Your task to perform on an android device: Search for good Italian restaurants Image 0: 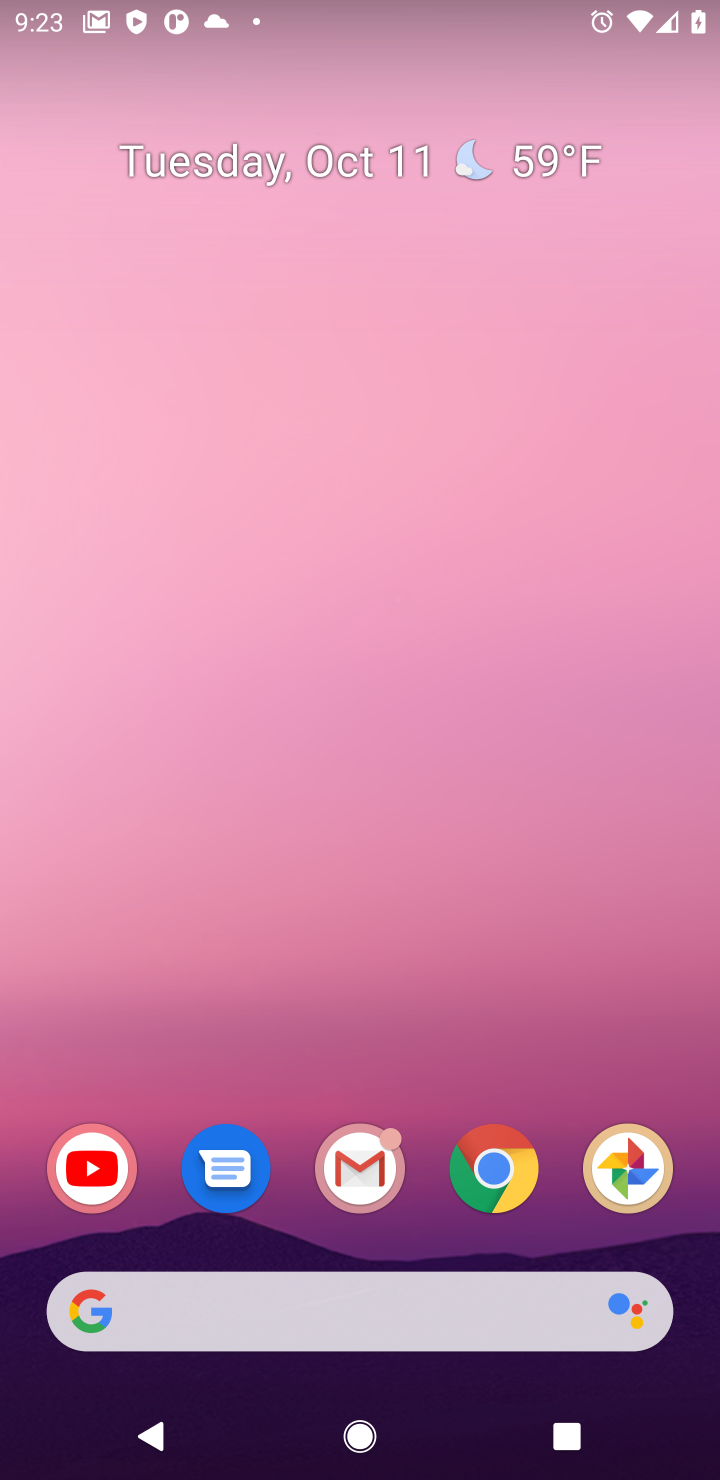
Step 0: press home button
Your task to perform on an android device: Search for good Italian restaurants Image 1: 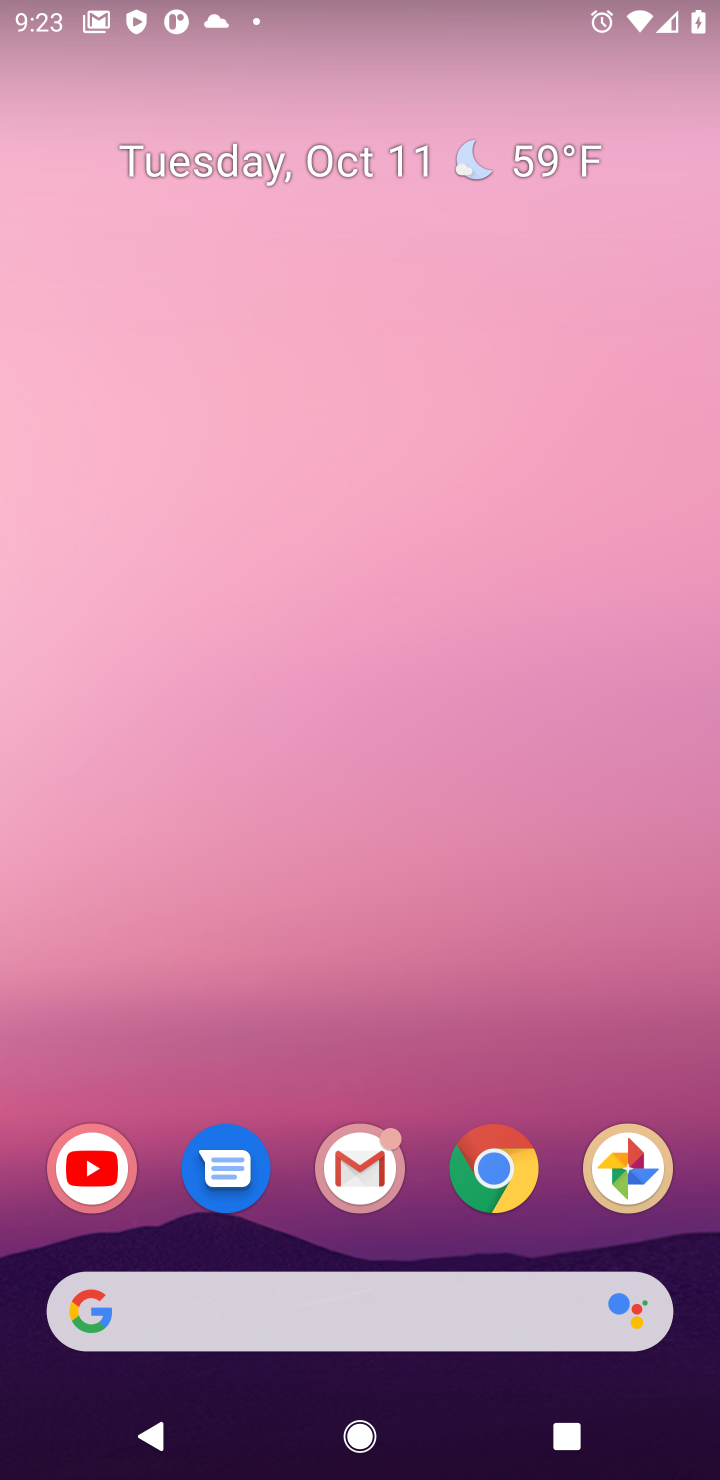
Step 1: click (522, 1136)
Your task to perform on an android device: Search for good Italian restaurants Image 2: 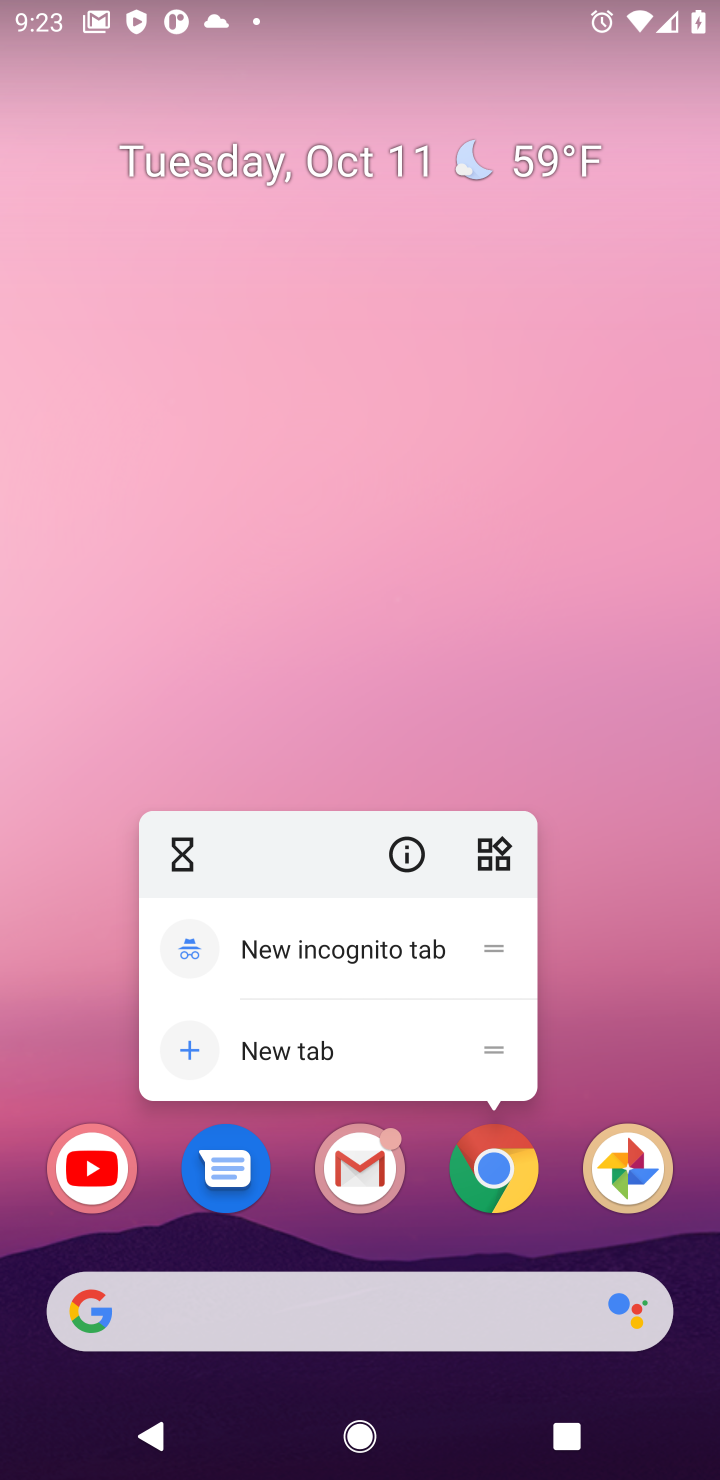
Step 2: press home button
Your task to perform on an android device: Search for good Italian restaurants Image 3: 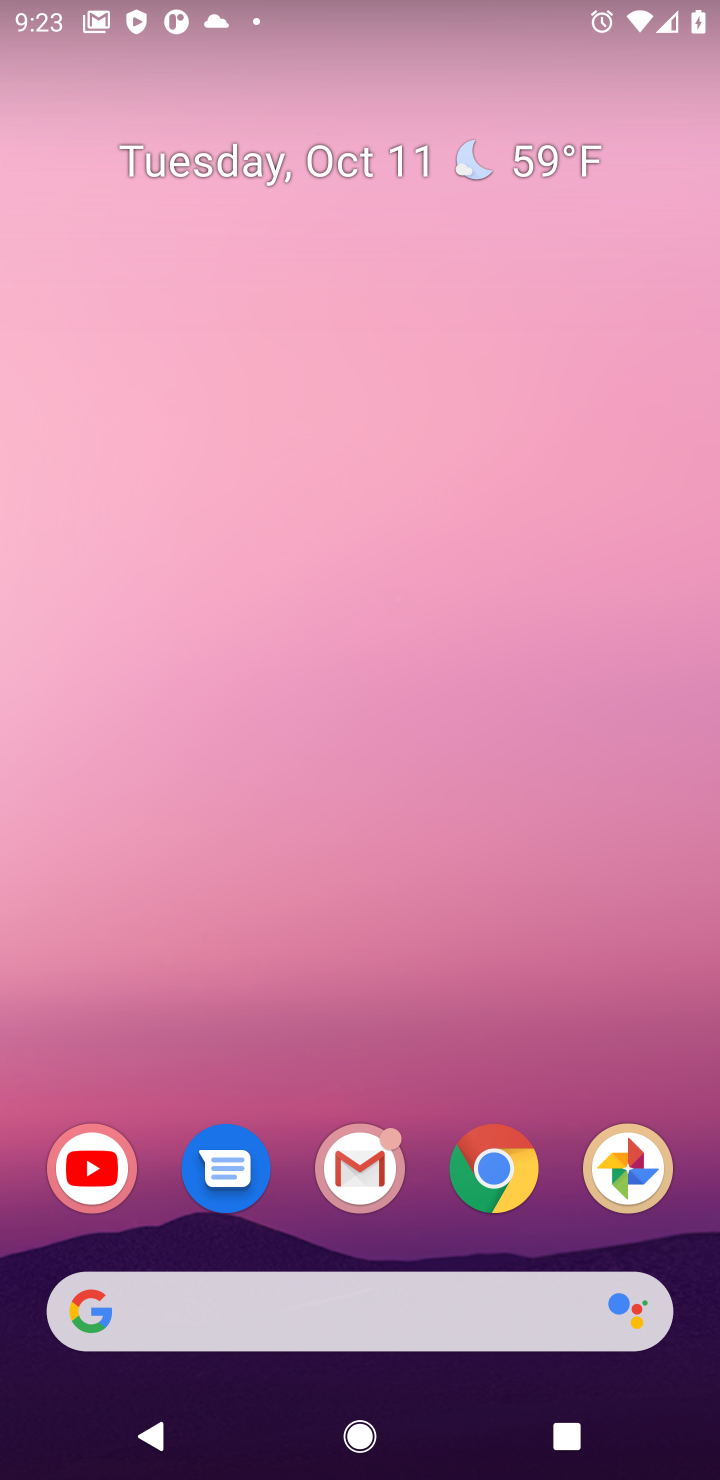
Step 3: press back button
Your task to perform on an android device: Search for good Italian restaurants Image 4: 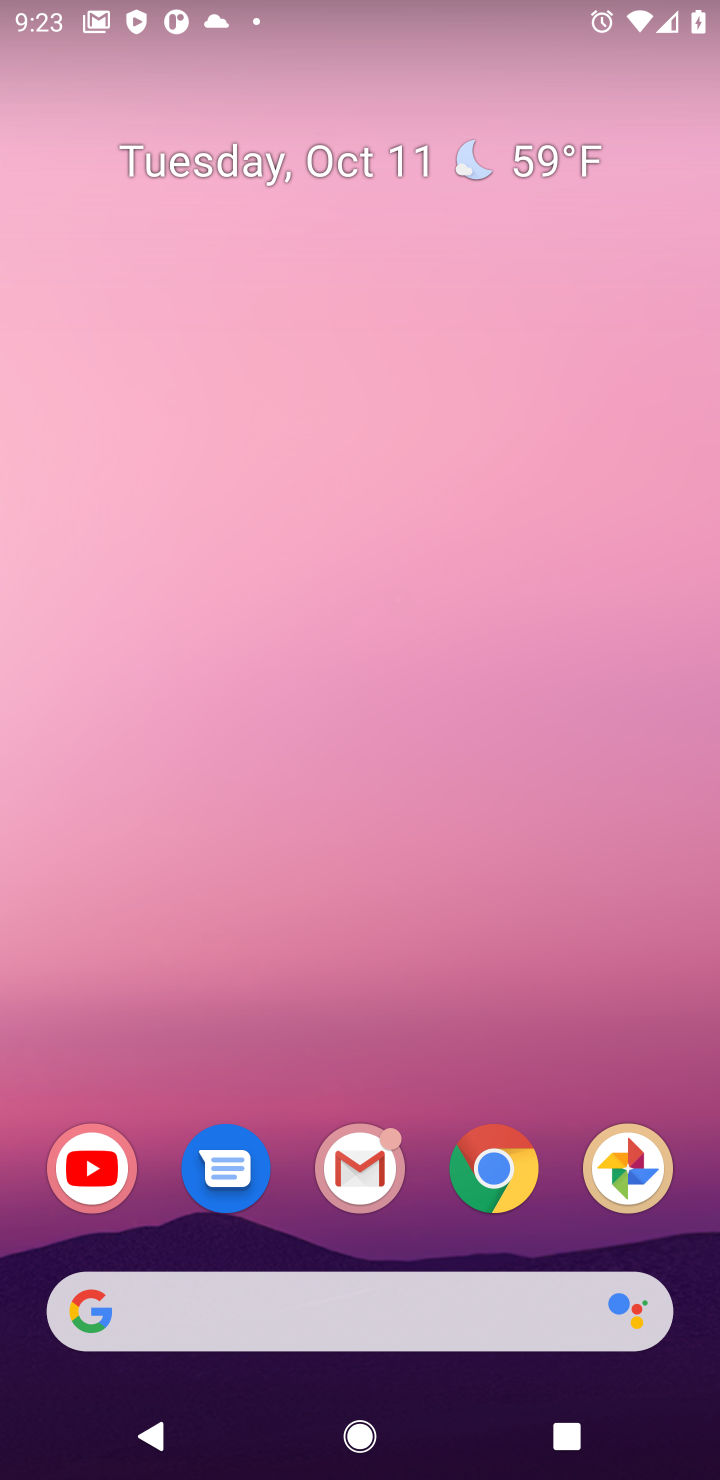
Step 4: press home button
Your task to perform on an android device: Search for good Italian restaurants Image 5: 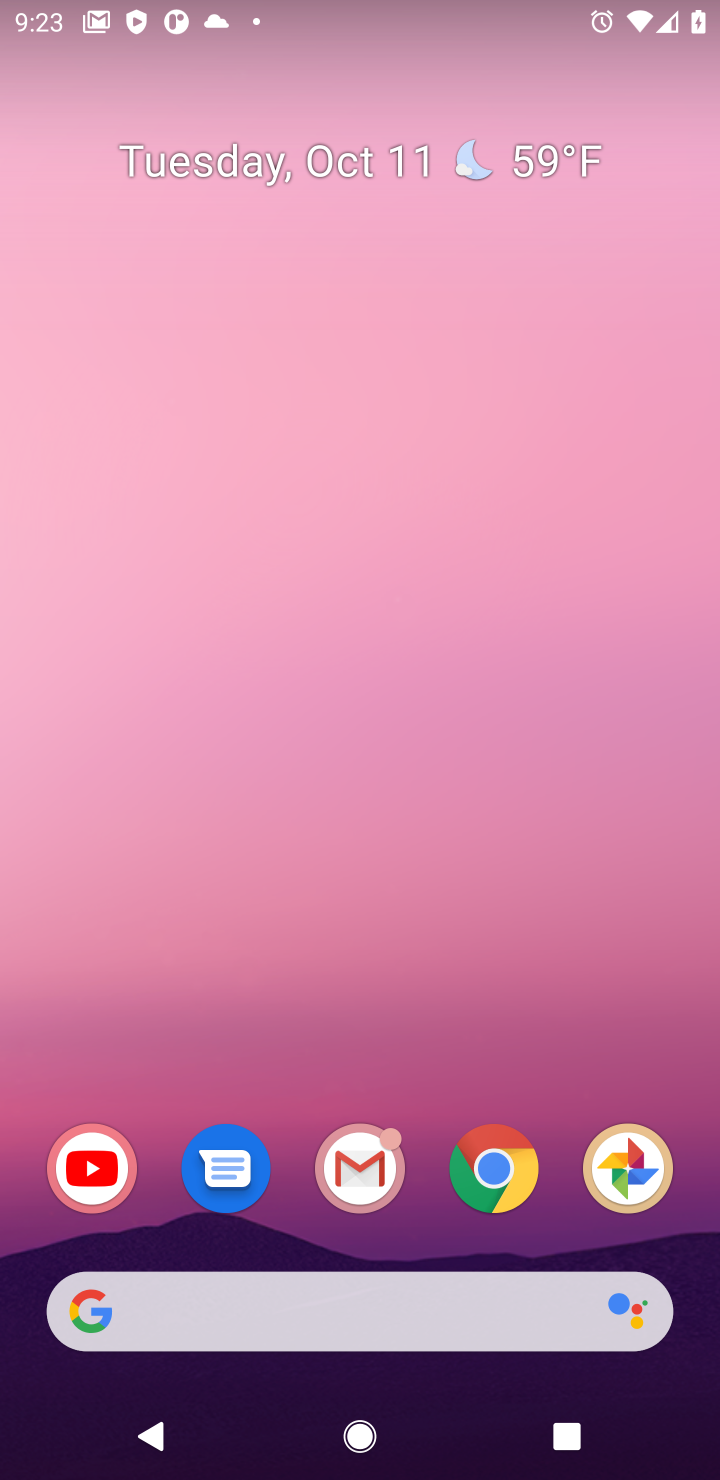
Step 5: click (500, 1158)
Your task to perform on an android device: Search for good Italian restaurants Image 6: 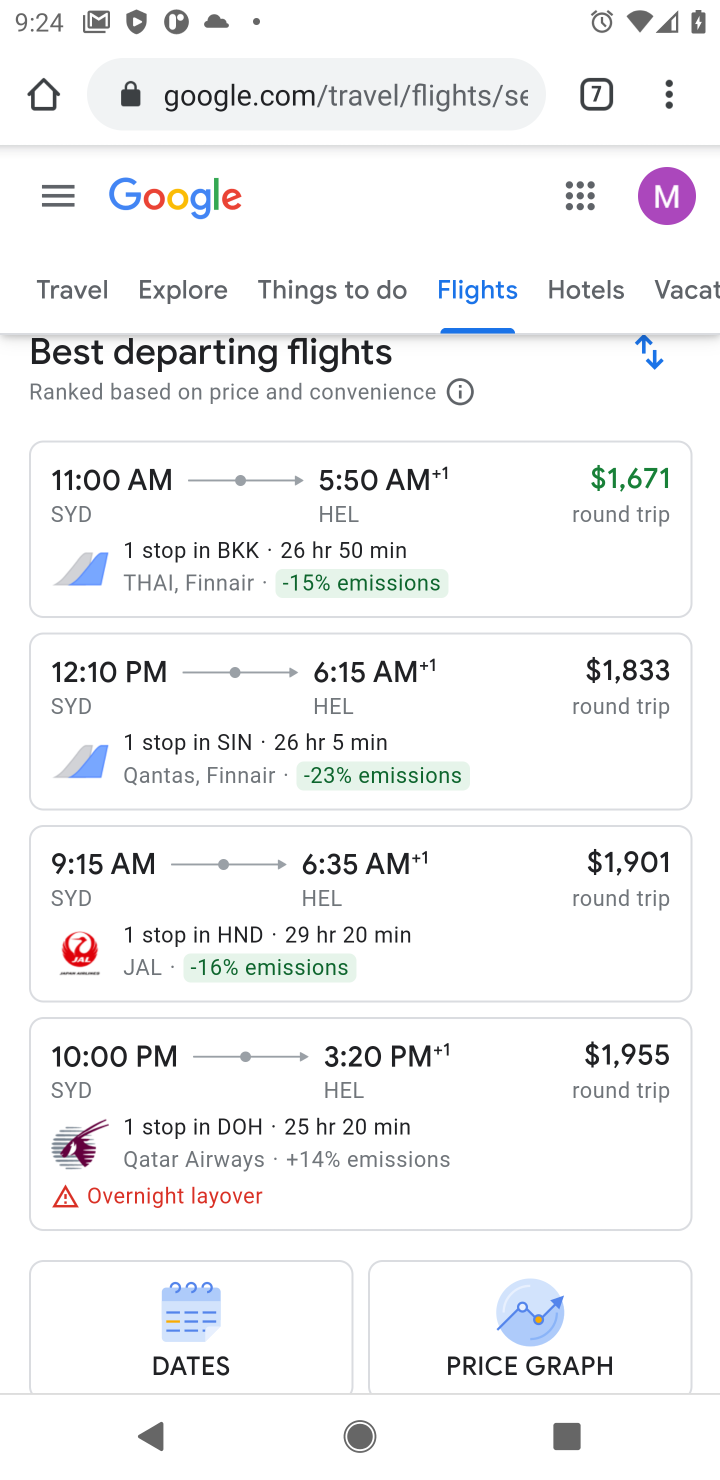
Step 6: click (338, 99)
Your task to perform on an android device: Search for good Italian restaurants Image 7: 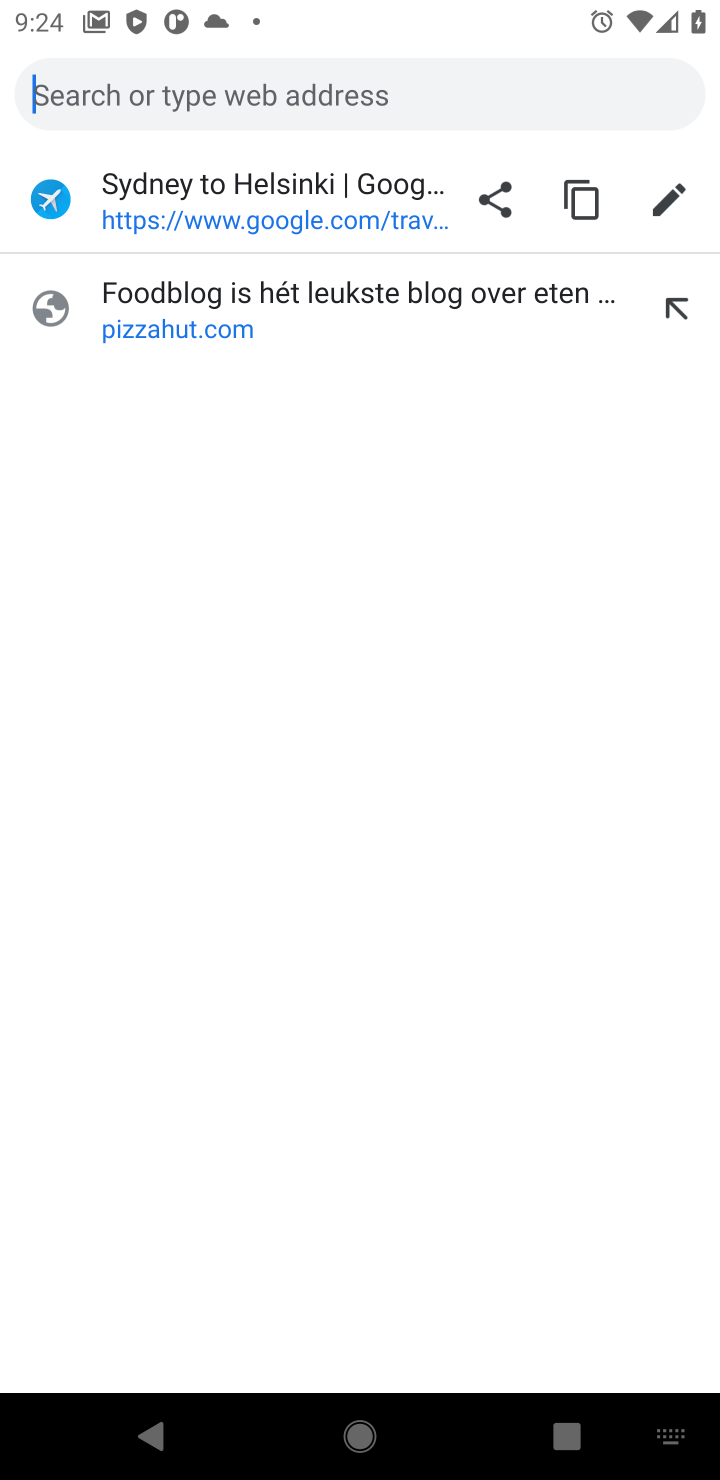
Step 7: type "good italian restaurants"
Your task to perform on an android device: Search for good Italian restaurants Image 8: 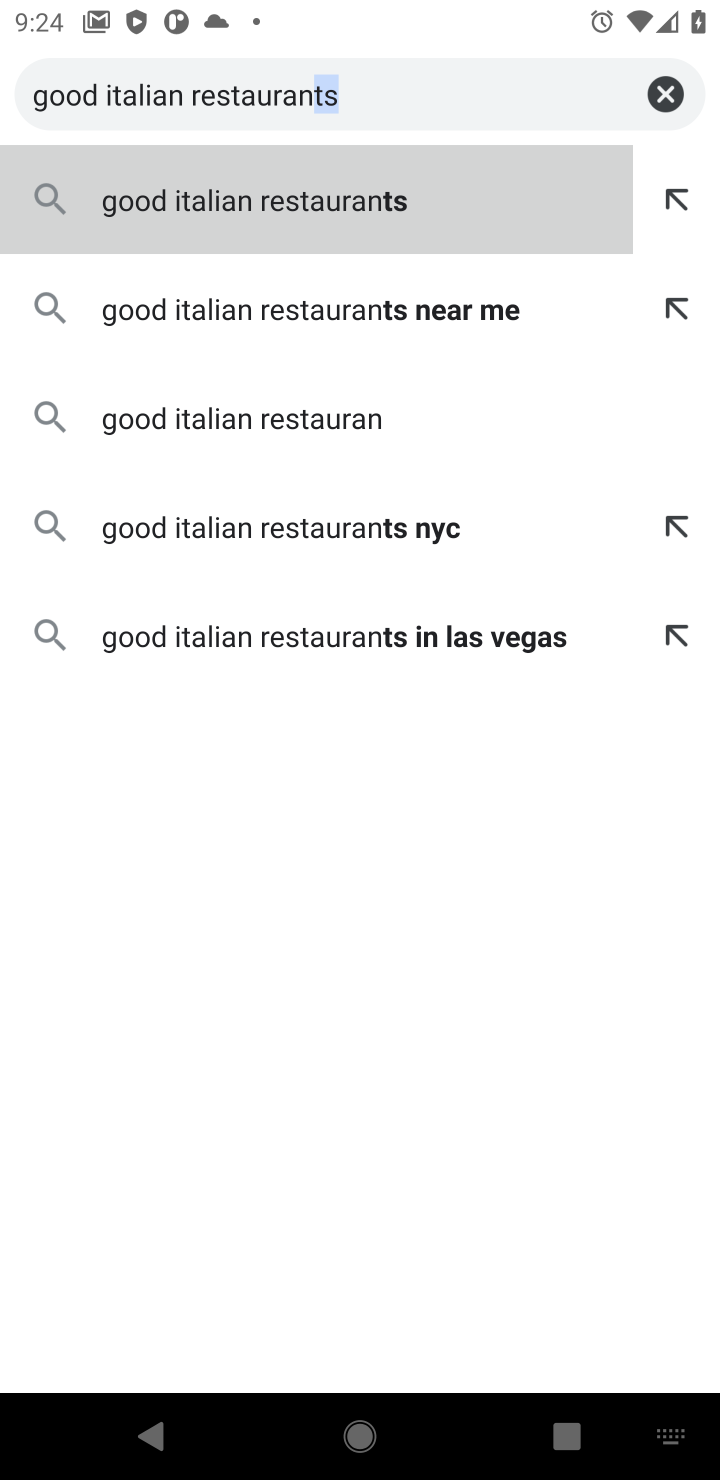
Step 8: click (350, 302)
Your task to perform on an android device: Search for good Italian restaurants Image 9: 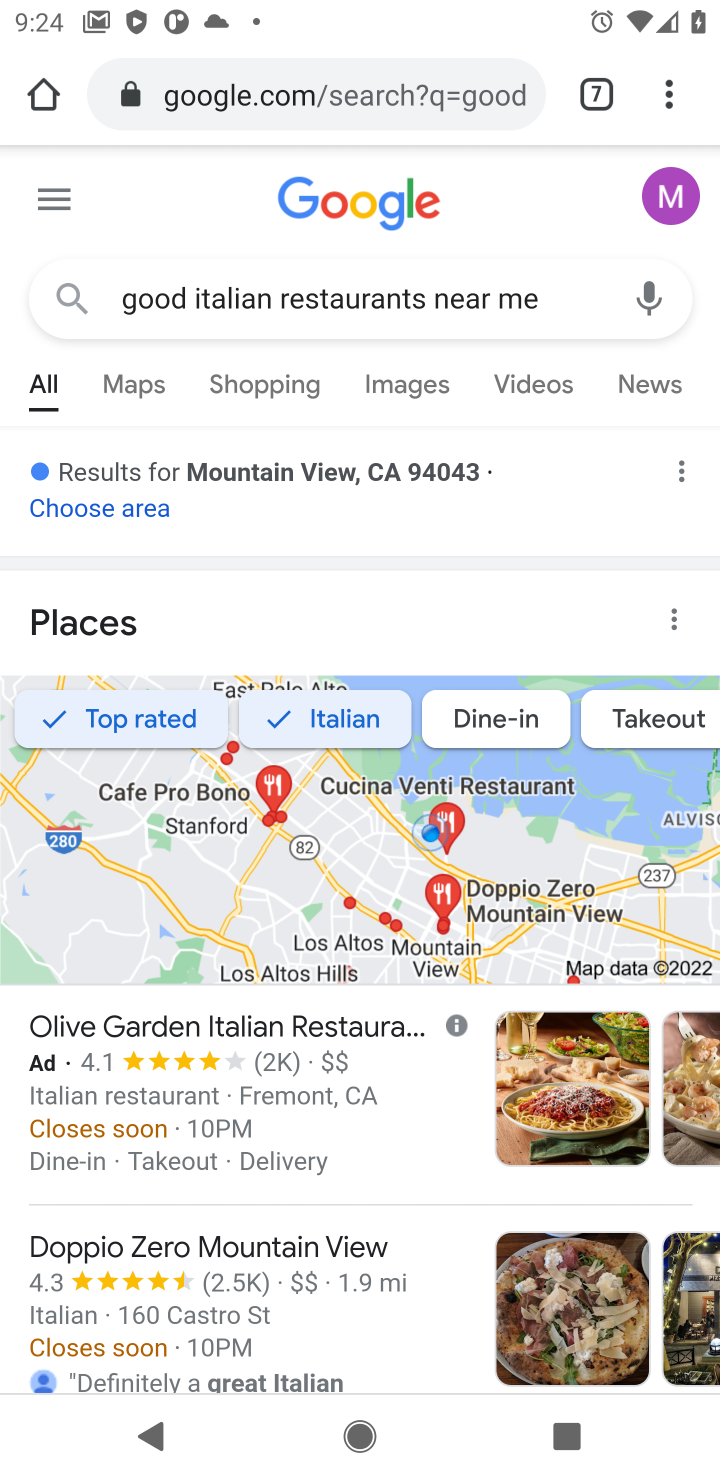
Step 9: drag from (321, 1219) to (509, 89)
Your task to perform on an android device: Search for good Italian restaurants Image 10: 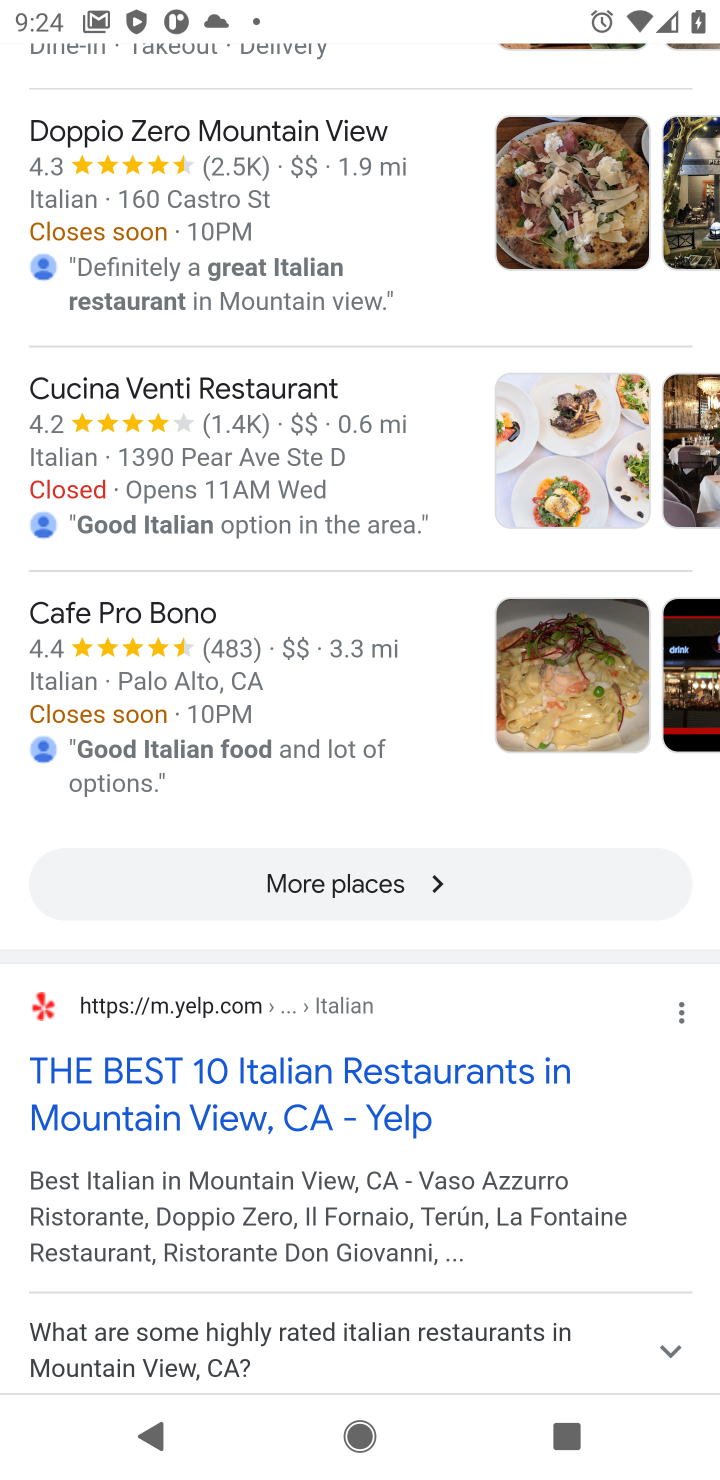
Step 10: click (258, 1062)
Your task to perform on an android device: Search for good Italian restaurants Image 11: 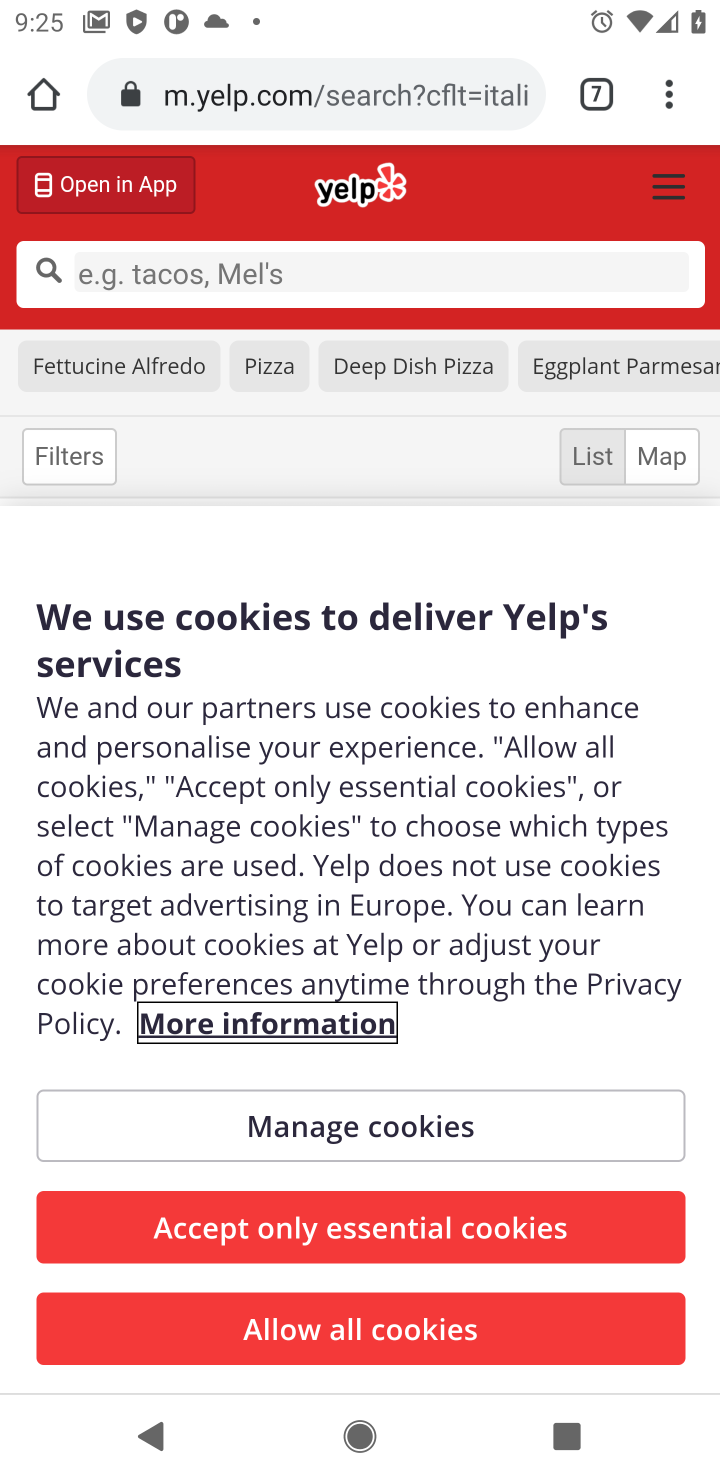
Step 11: drag from (520, 859) to (648, 466)
Your task to perform on an android device: Search for good Italian restaurants Image 12: 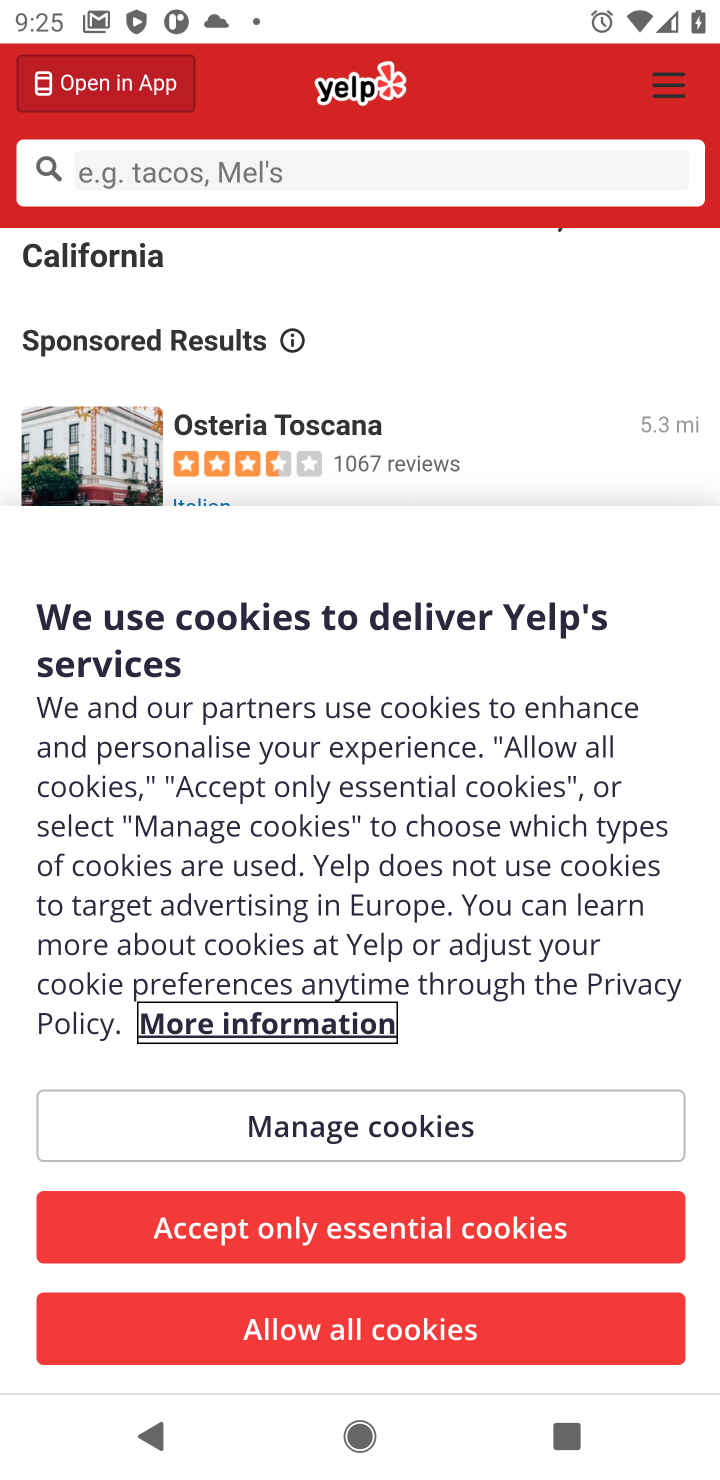
Step 12: click (360, 1116)
Your task to perform on an android device: Search for good Italian restaurants Image 13: 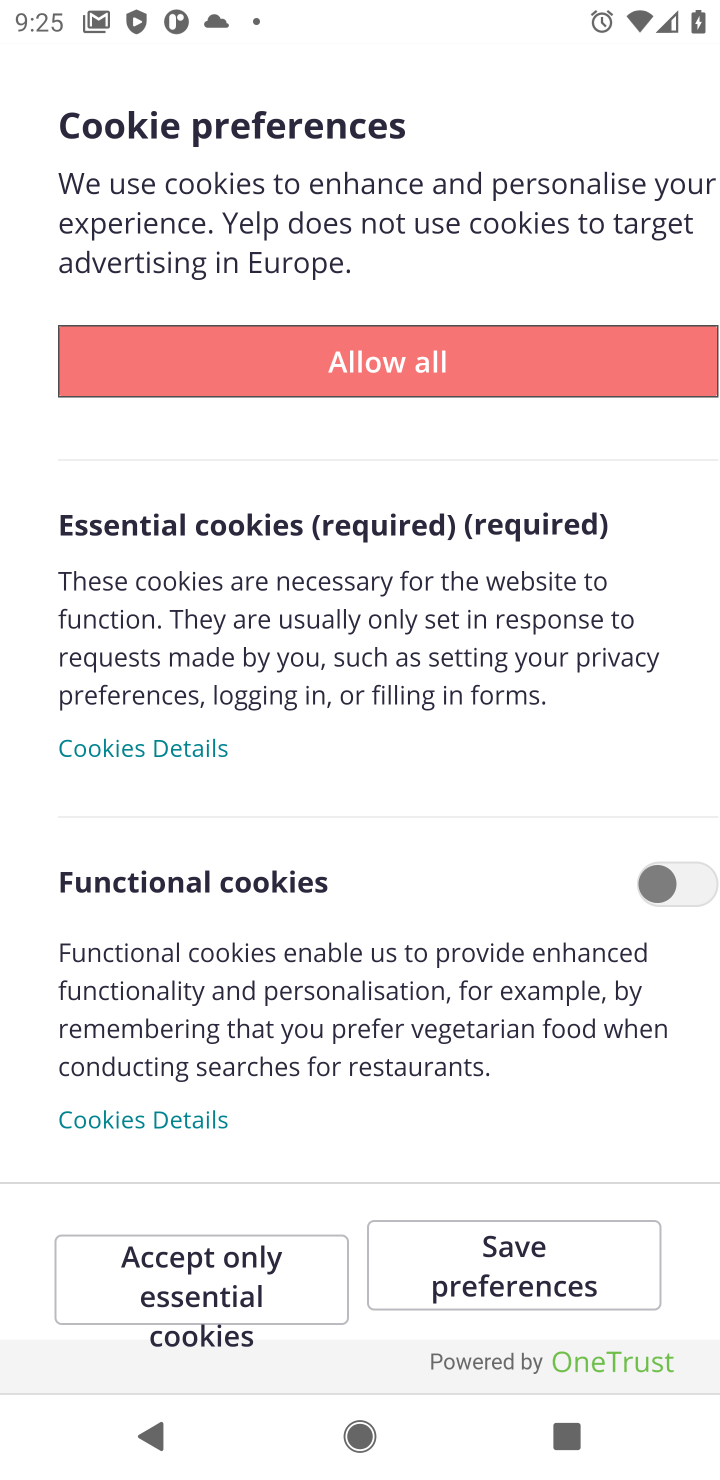
Step 13: drag from (499, 346) to (403, 1315)
Your task to perform on an android device: Search for good Italian restaurants Image 14: 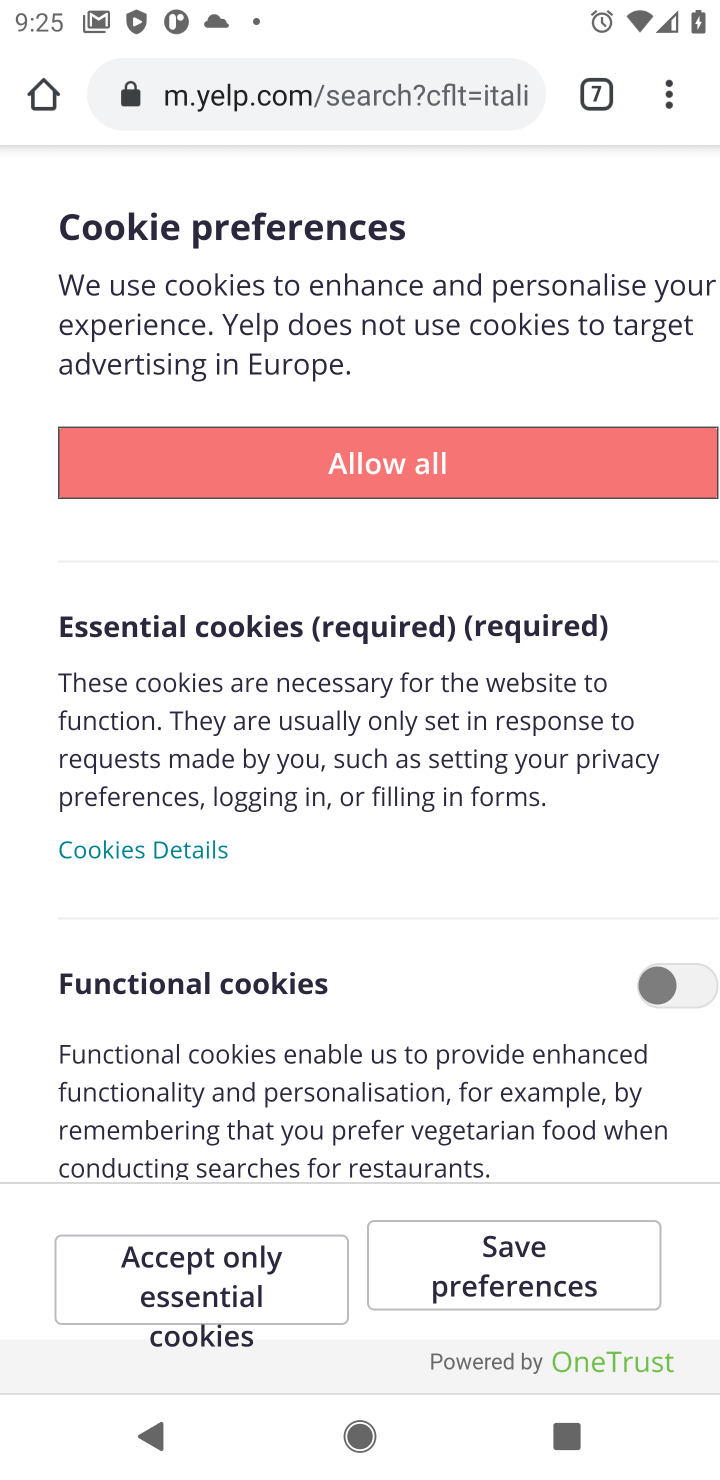
Step 14: drag from (481, 840) to (584, 270)
Your task to perform on an android device: Search for good Italian restaurants Image 15: 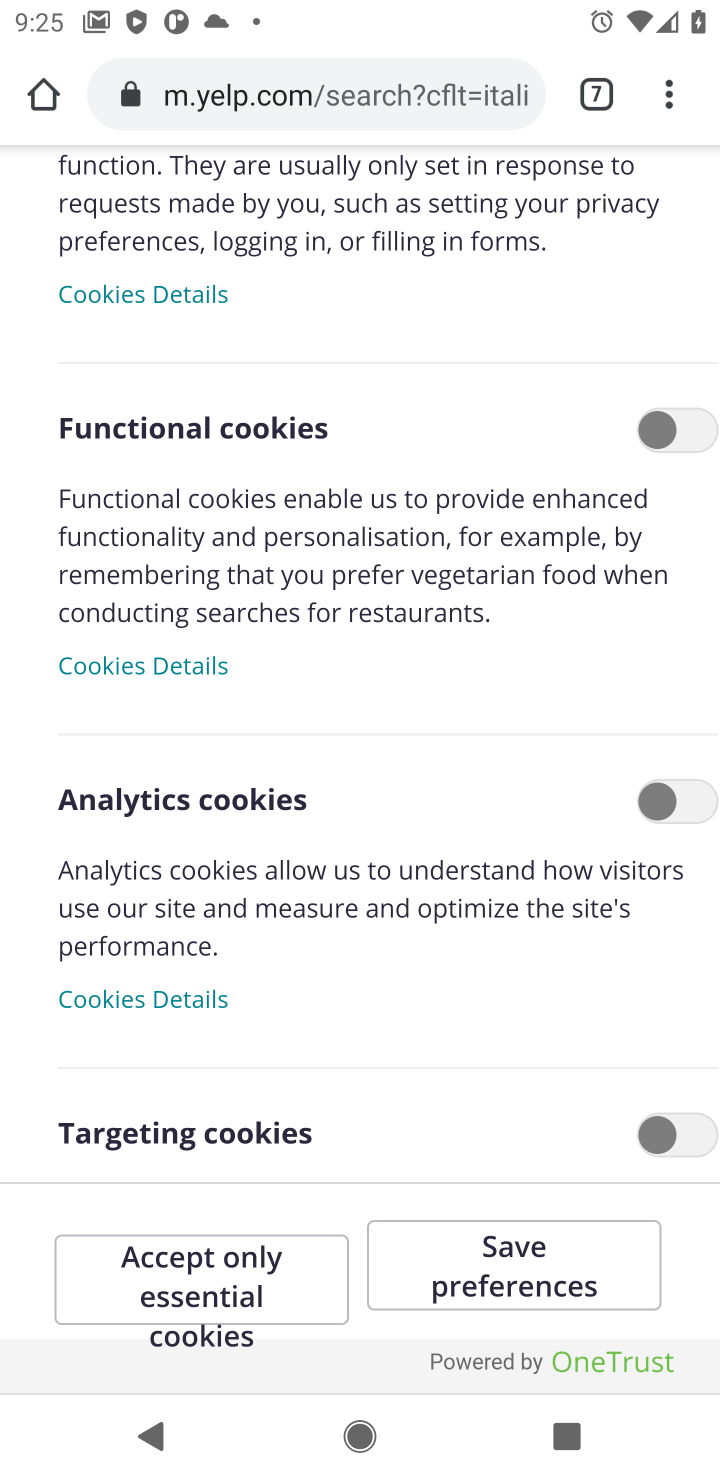
Step 15: drag from (424, 795) to (466, 78)
Your task to perform on an android device: Search for good Italian restaurants Image 16: 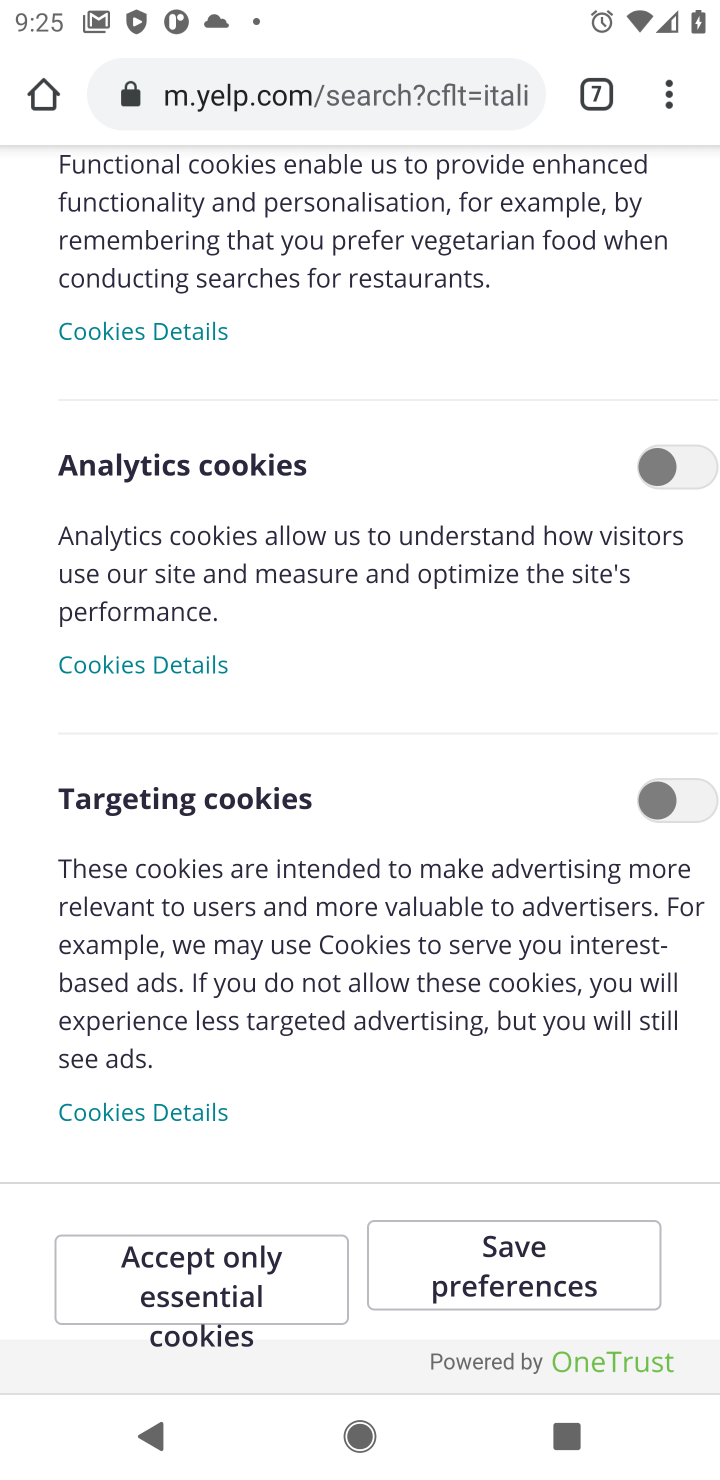
Step 16: drag from (268, 879) to (479, 372)
Your task to perform on an android device: Search for good Italian restaurants Image 17: 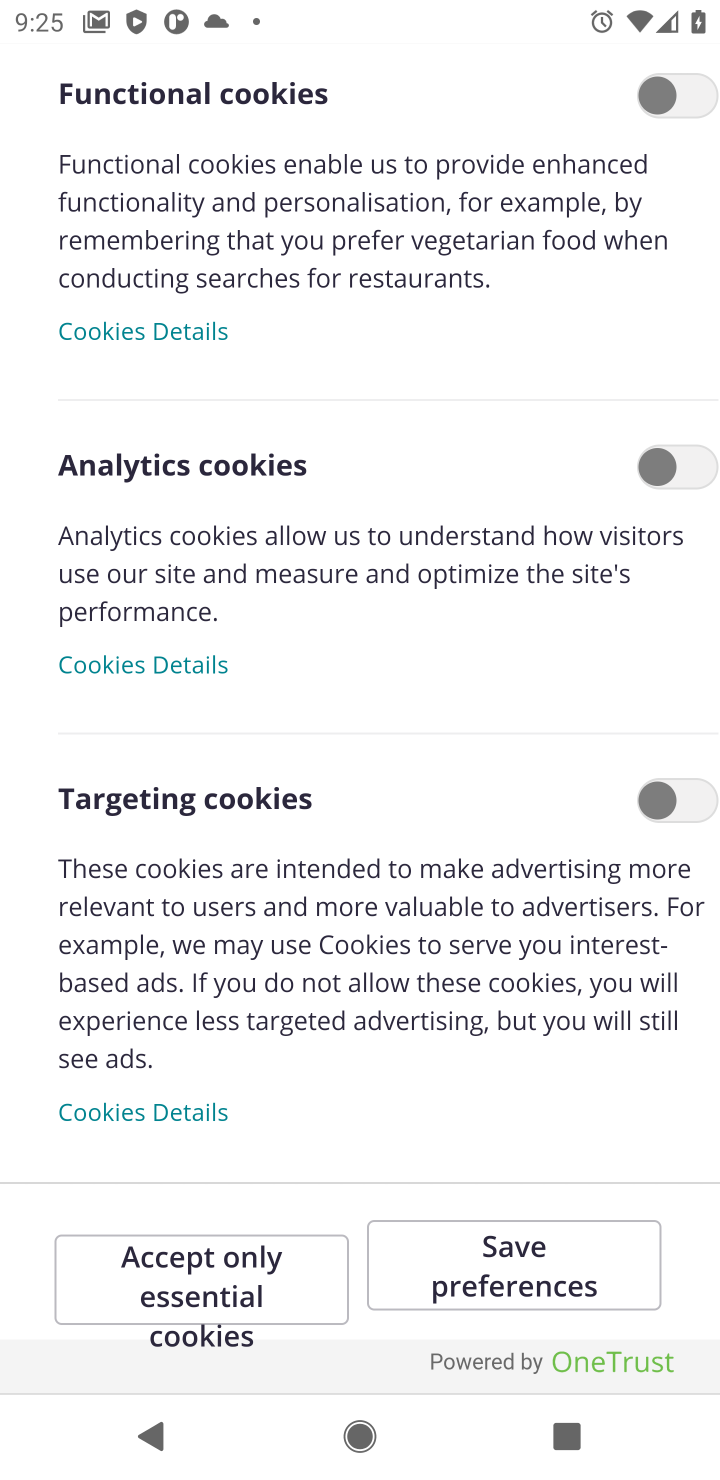
Step 17: press back button
Your task to perform on an android device: Search for good Italian restaurants Image 18: 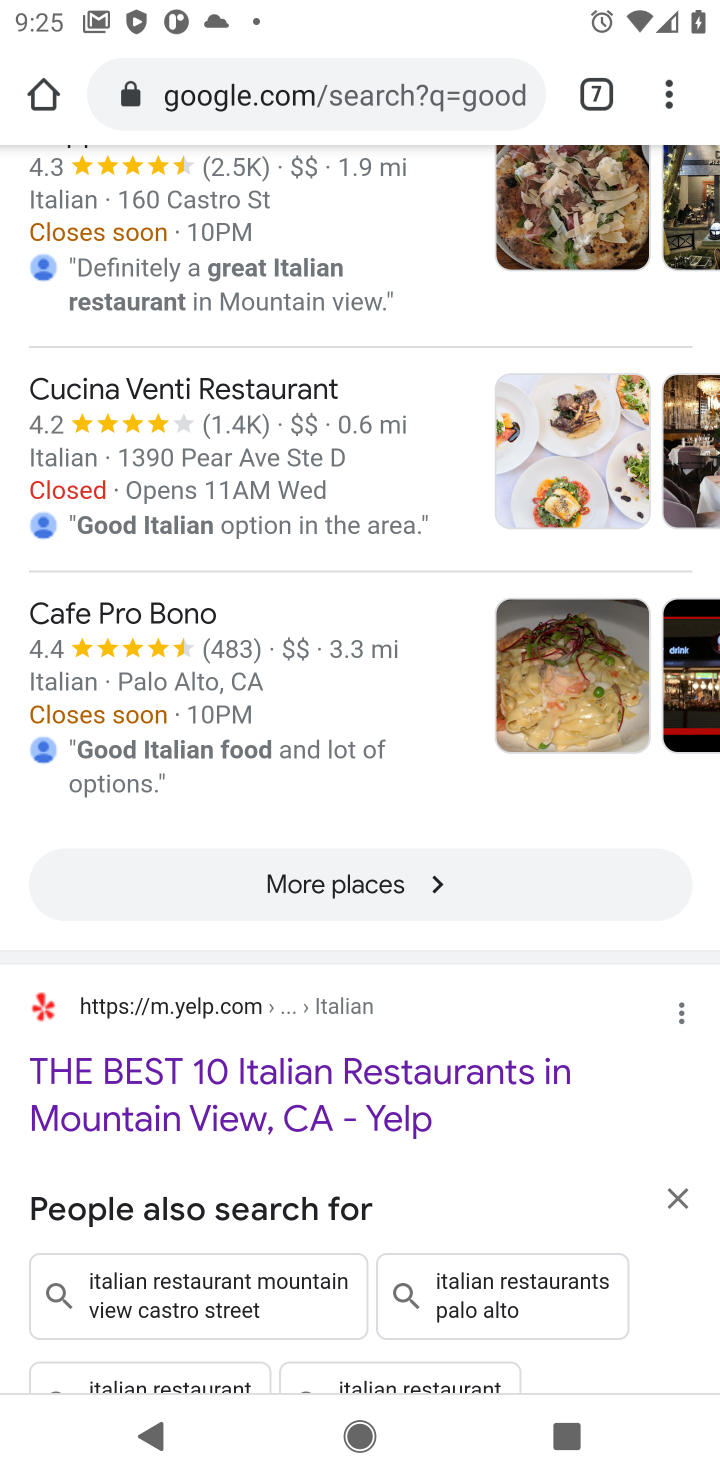
Step 18: drag from (340, 707) to (267, 1035)
Your task to perform on an android device: Search for good Italian restaurants Image 19: 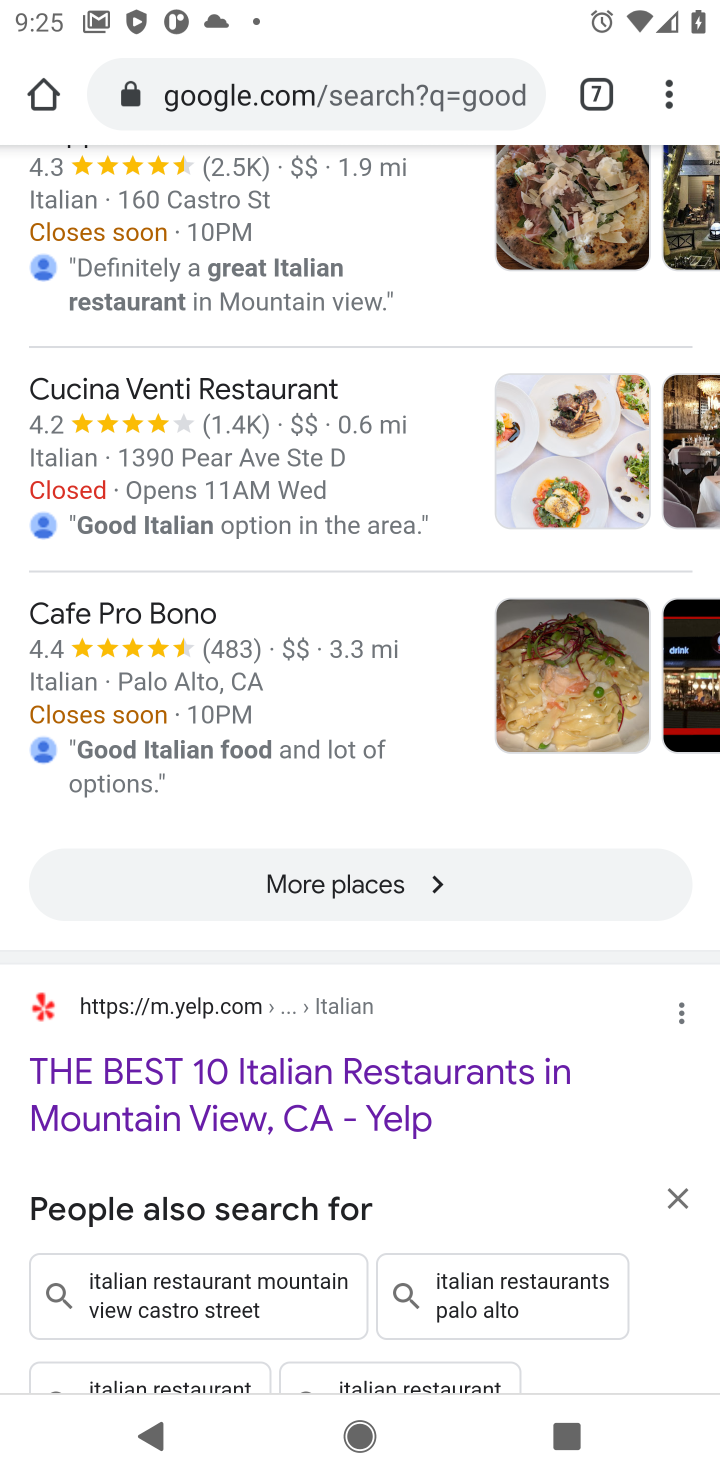
Step 19: click (333, 883)
Your task to perform on an android device: Search for good Italian restaurants Image 20: 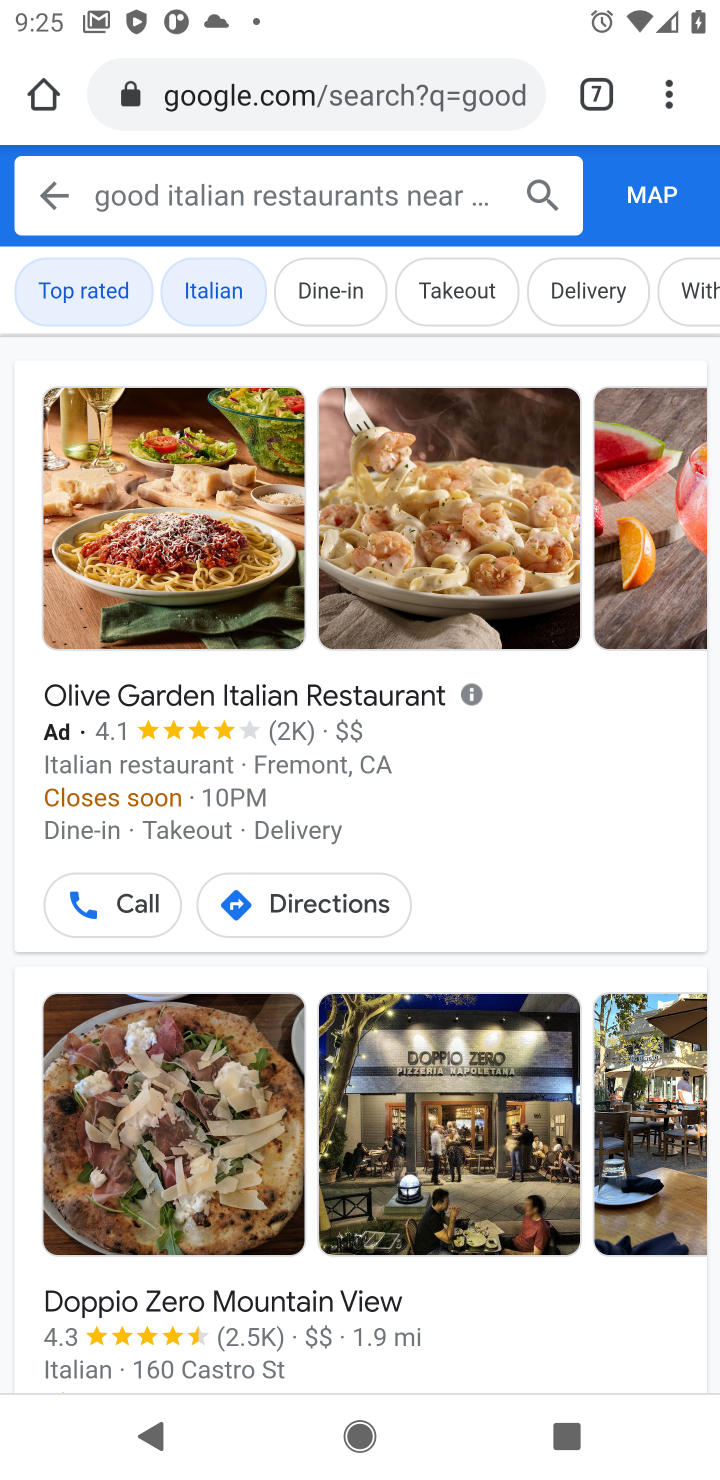
Step 20: drag from (282, 1213) to (423, 492)
Your task to perform on an android device: Search for good Italian restaurants Image 21: 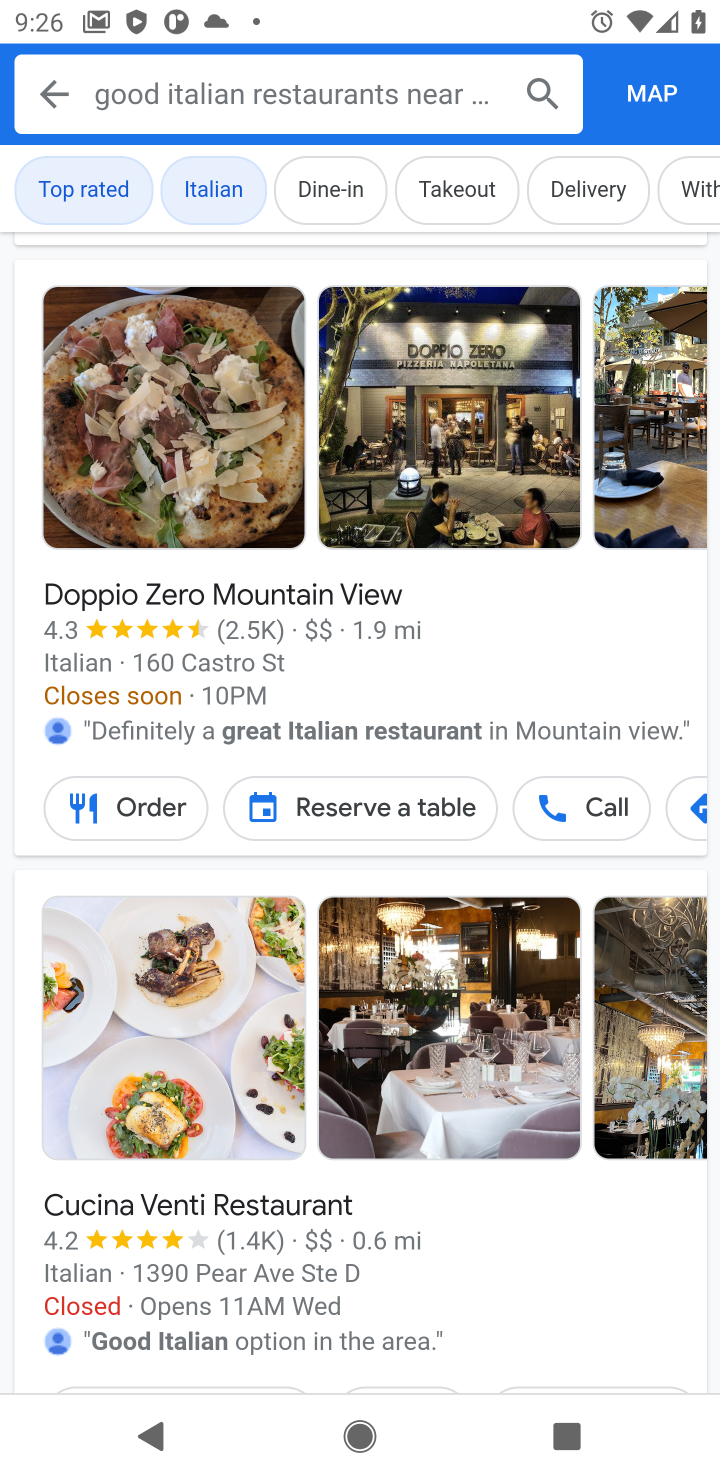
Step 21: drag from (339, 1098) to (424, 473)
Your task to perform on an android device: Search for good Italian restaurants Image 22: 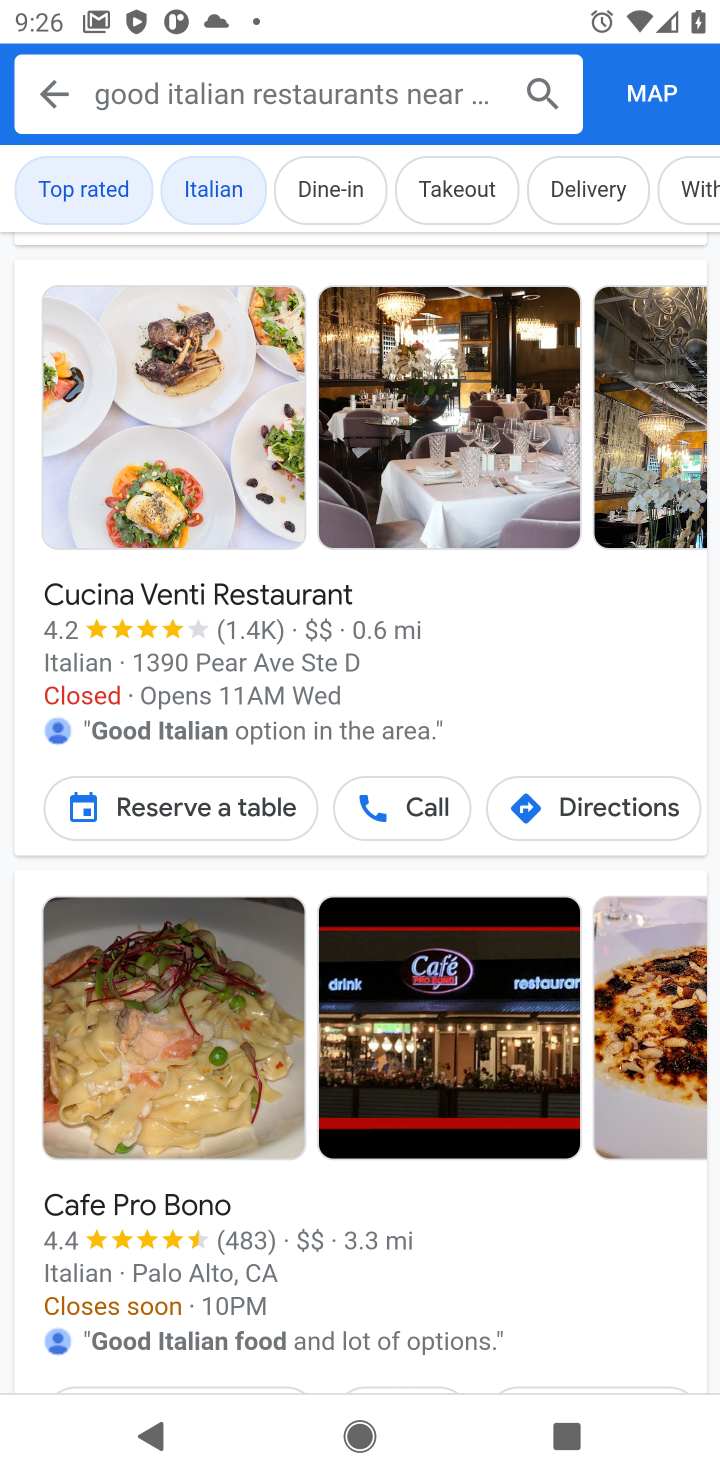
Step 22: click (527, 464)
Your task to perform on an android device: Search for good Italian restaurants Image 23: 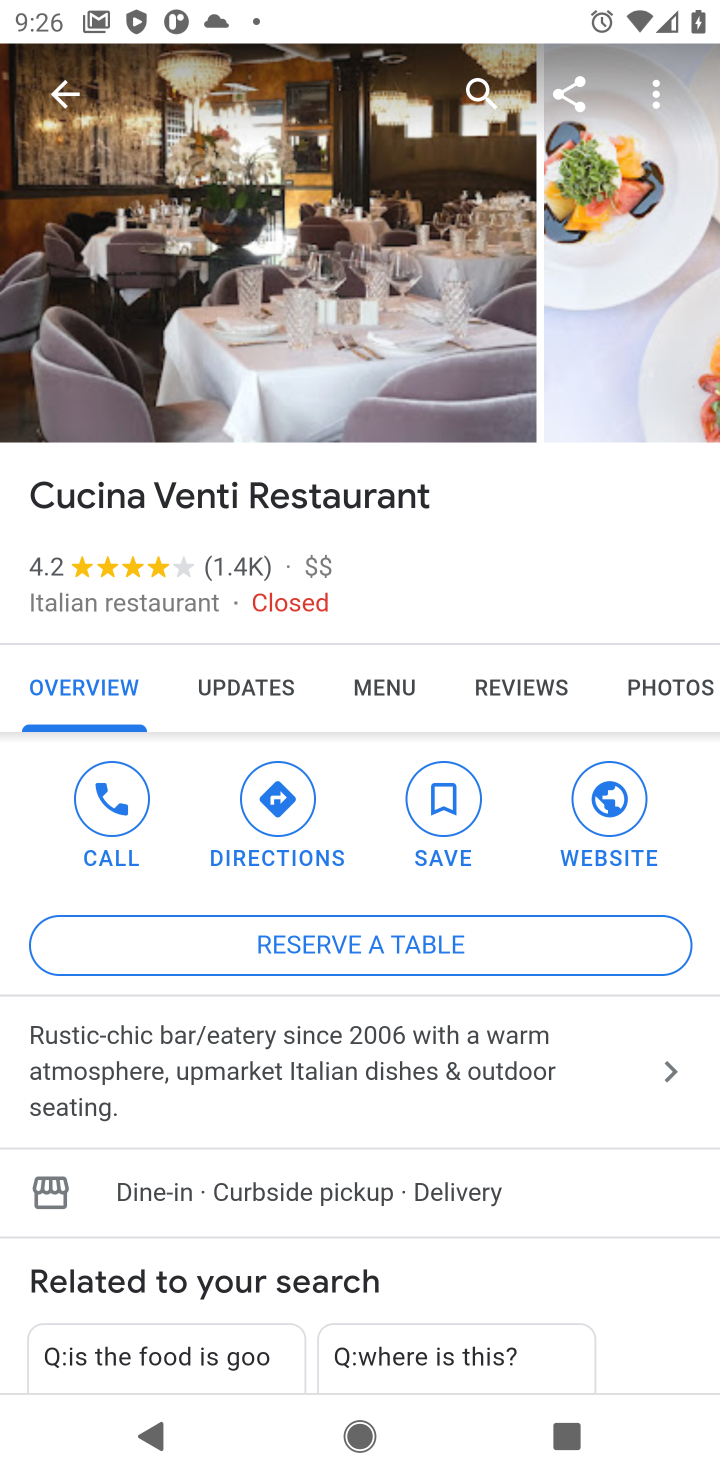
Step 23: task complete